Your task to perform on an android device: Is it going to rain this weekend? Image 0: 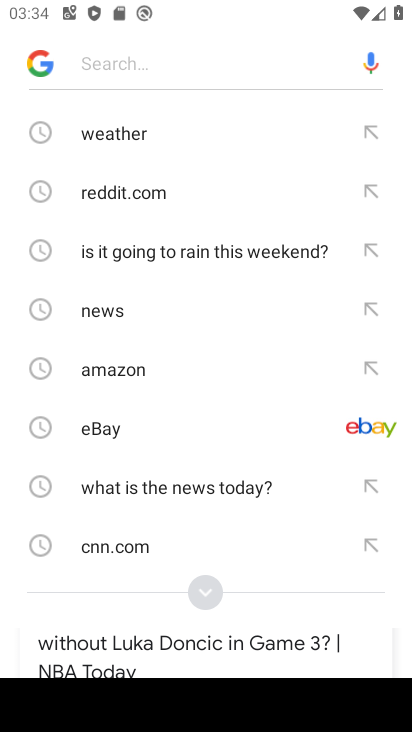
Step 0: type "is it going to rain this weekend"
Your task to perform on an android device: Is it going to rain this weekend? Image 1: 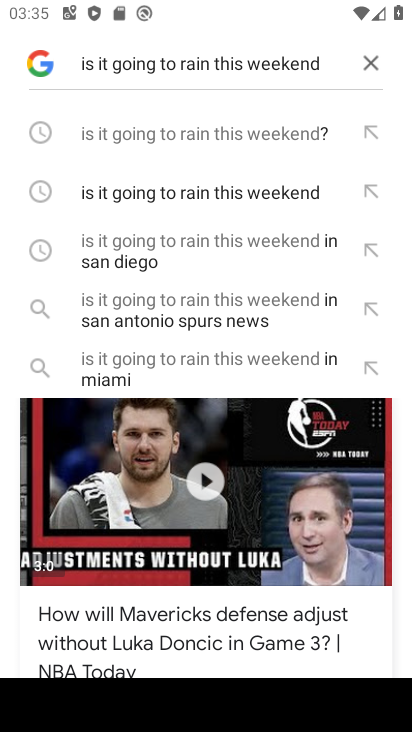
Step 1: click (249, 133)
Your task to perform on an android device: Is it going to rain this weekend? Image 2: 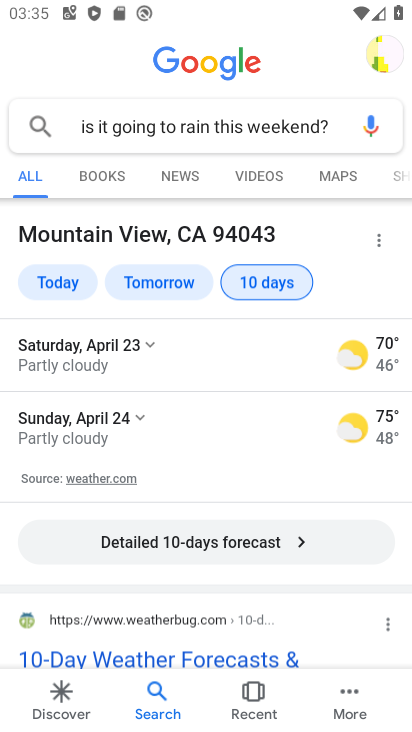
Step 2: task complete